Your task to perform on an android device: check google app version Image 0: 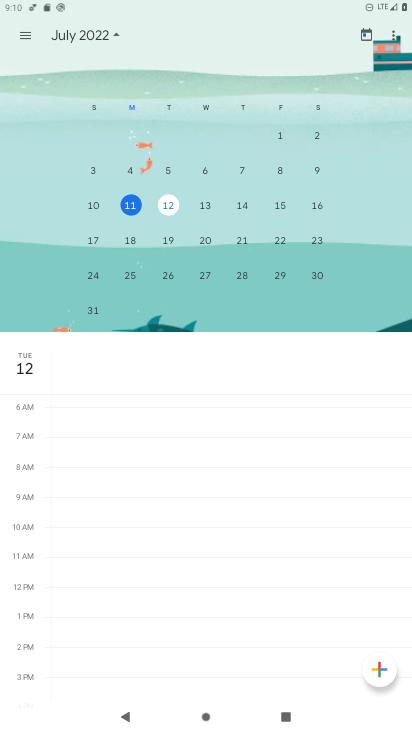
Step 0: press home button
Your task to perform on an android device: check google app version Image 1: 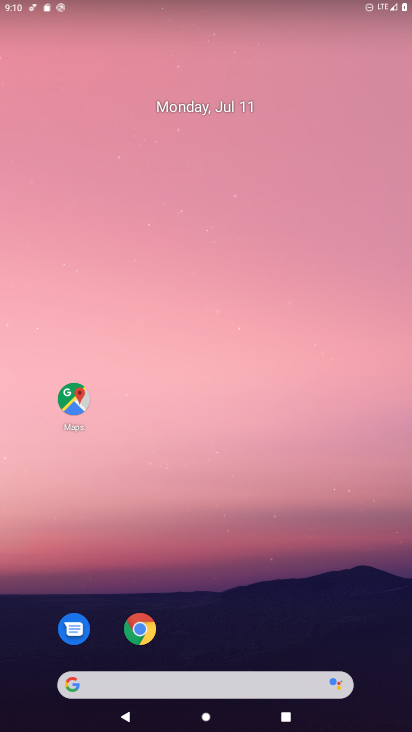
Step 1: click (69, 690)
Your task to perform on an android device: check google app version Image 2: 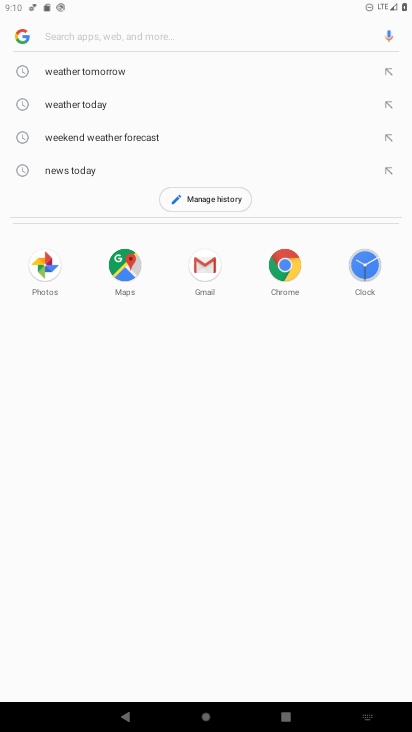
Step 2: click (18, 34)
Your task to perform on an android device: check google app version Image 3: 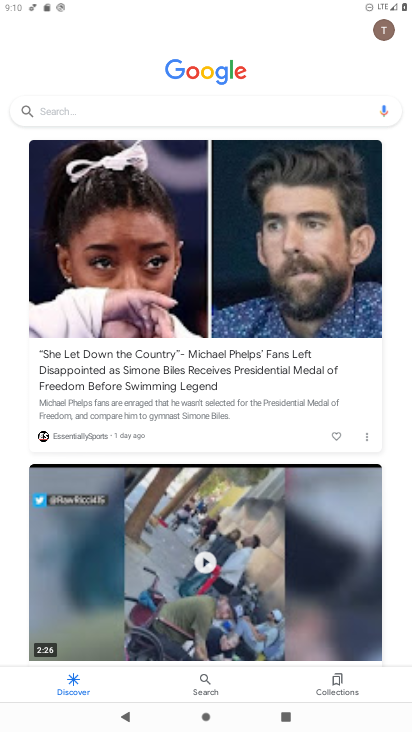
Step 3: click (388, 34)
Your task to perform on an android device: check google app version Image 4: 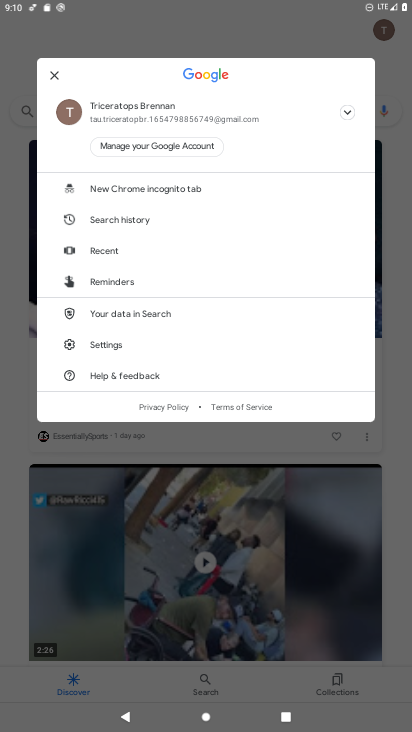
Step 4: click (134, 348)
Your task to perform on an android device: check google app version Image 5: 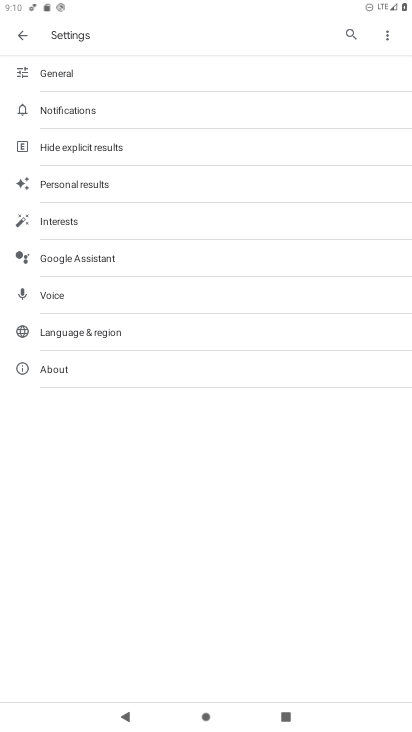
Step 5: click (69, 375)
Your task to perform on an android device: check google app version Image 6: 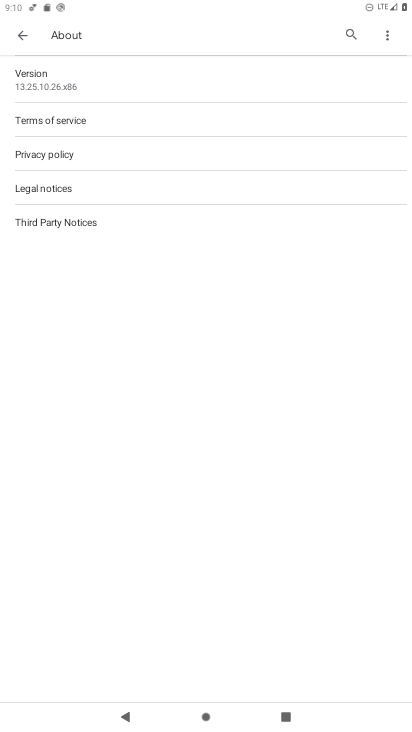
Step 6: click (95, 76)
Your task to perform on an android device: check google app version Image 7: 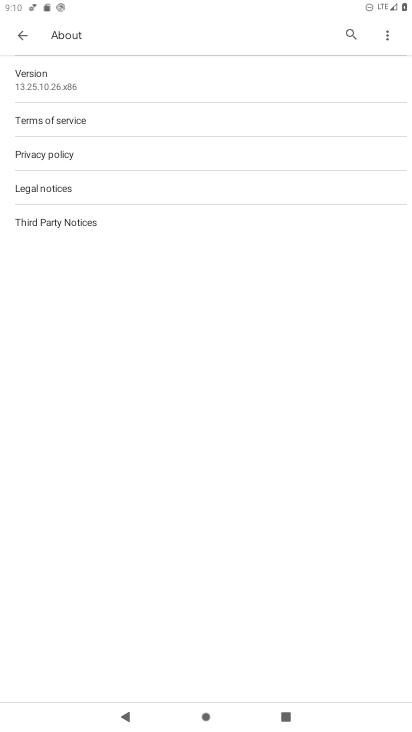
Step 7: task complete